Your task to perform on an android device: Go to settings Image 0: 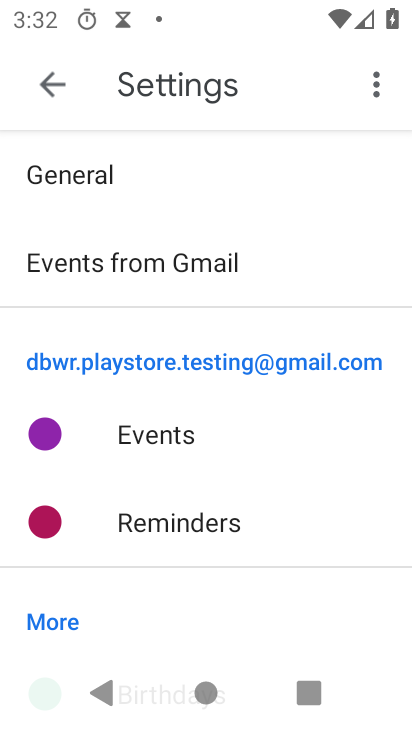
Step 0: press home button
Your task to perform on an android device: Go to settings Image 1: 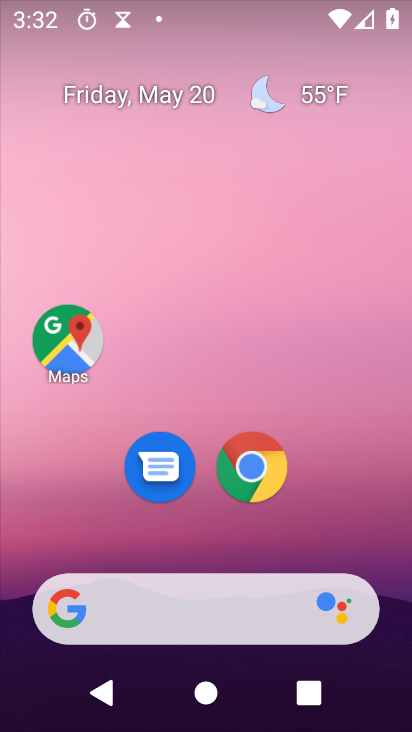
Step 1: drag from (182, 530) to (196, 62)
Your task to perform on an android device: Go to settings Image 2: 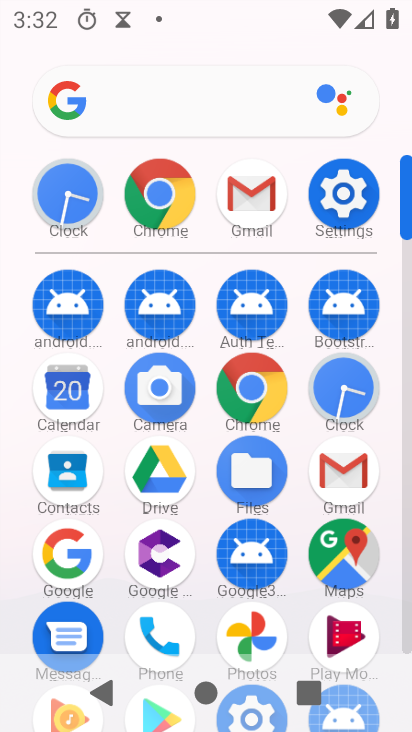
Step 2: click (340, 196)
Your task to perform on an android device: Go to settings Image 3: 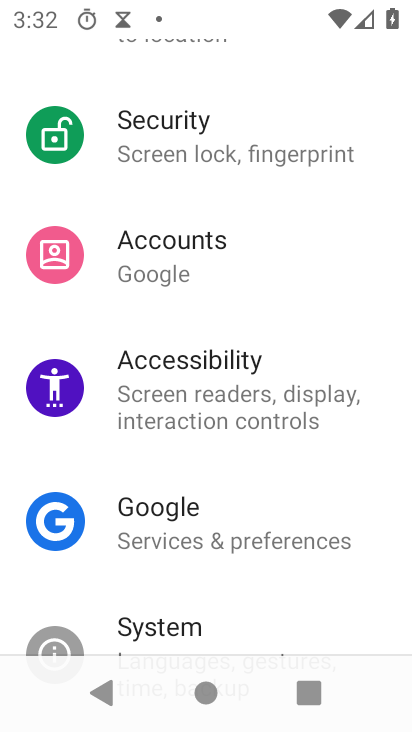
Step 3: task complete